Your task to perform on an android device: turn on wifi Image 0: 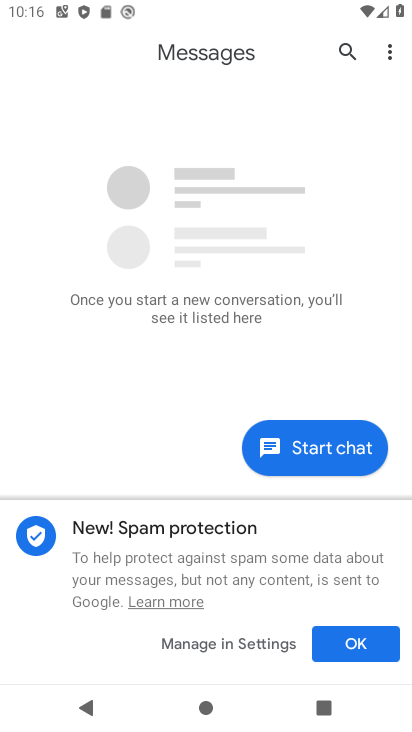
Step 0: drag from (351, 7) to (300, 432)
Your task to perform on an android device: turn on wifi Image 1: 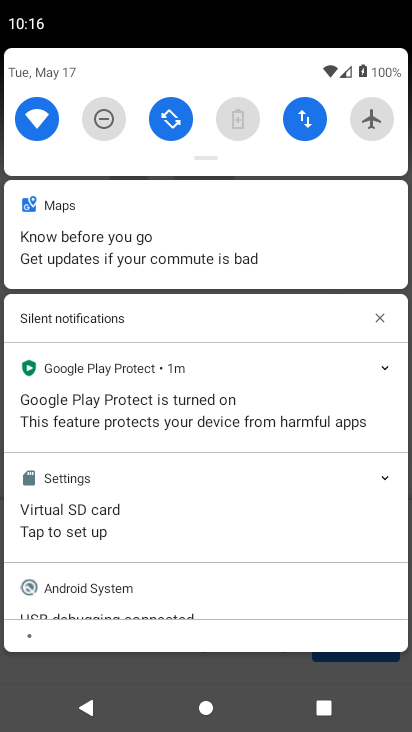
Step 1: task complete